Your task to perform on an android device: Do I have any events tomorrow? Image 0: 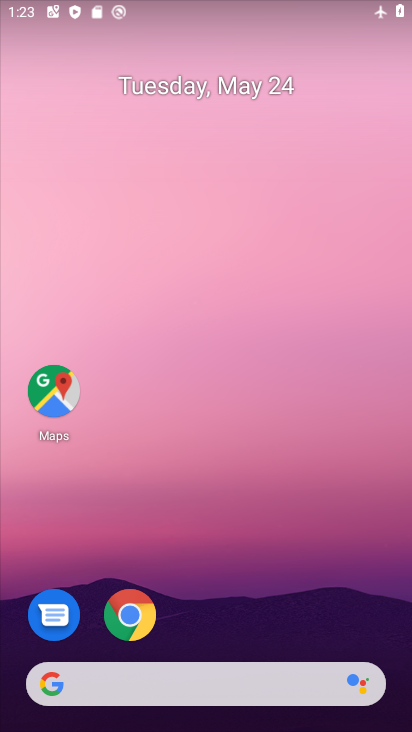
Step 0: drag from (230, 647) to (324, 145)
Your task to perform on an android device: Do I have any events tomorrow? Image 1: 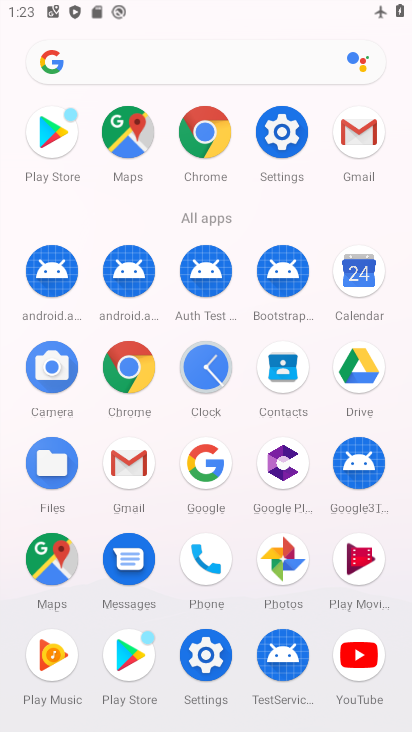
Step 1: click (259, 53)
Your task to perform on an android device: Do I have any events tomorrow? Image 2: 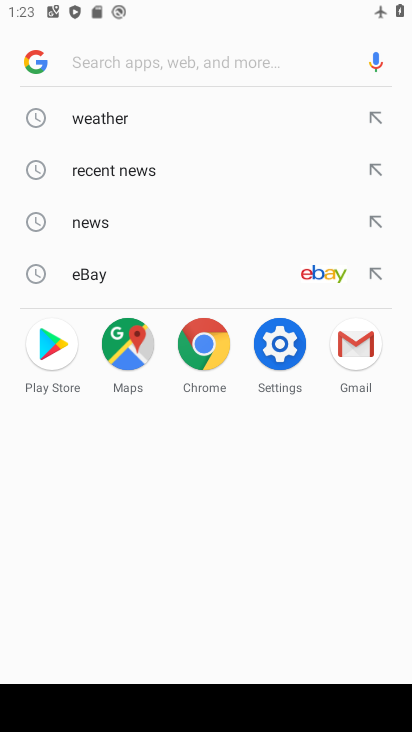
Step 2: click (84, 118)
Your task to perform on an android device: Do I have any events tomorrow? Image 3: 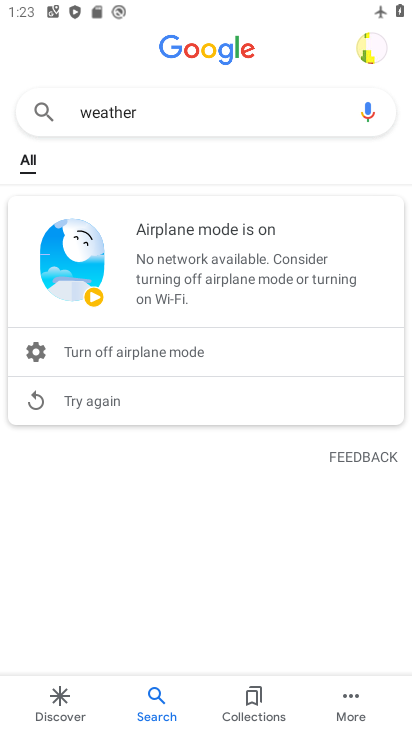
Step 3: drag from (343, 10) to (228, 636)
Your task to perform on an android device: Do I have any events tomorrow? Image 4: 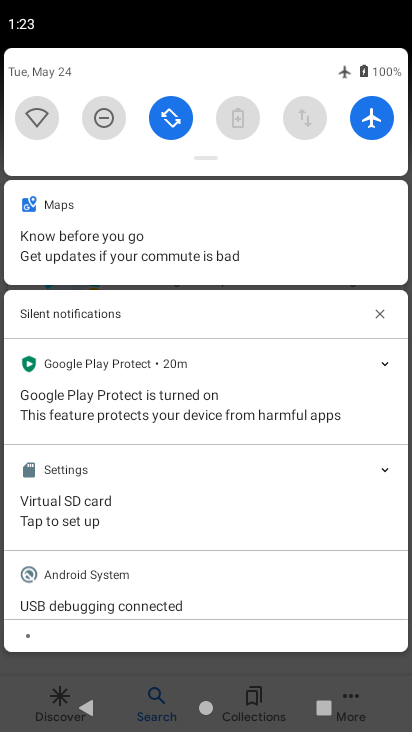
Step 4: click (371, 120)
Your task to perform on an android device: Do I have any events tomorrow? Image 5: 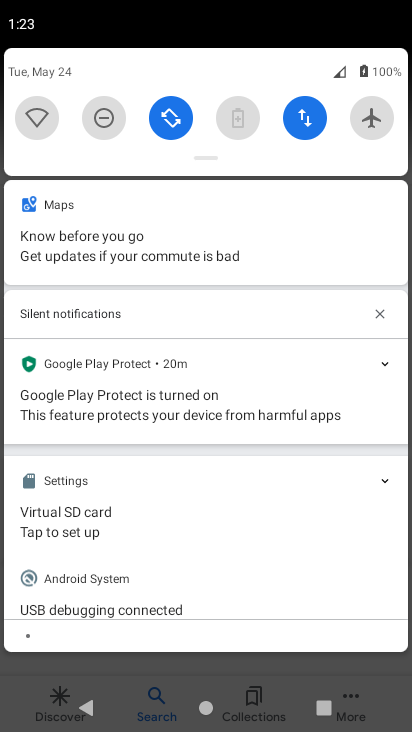
Step 5: click (159, 663)
Your task to perform on an android device: Do I have any events tomorrow? Image 6: 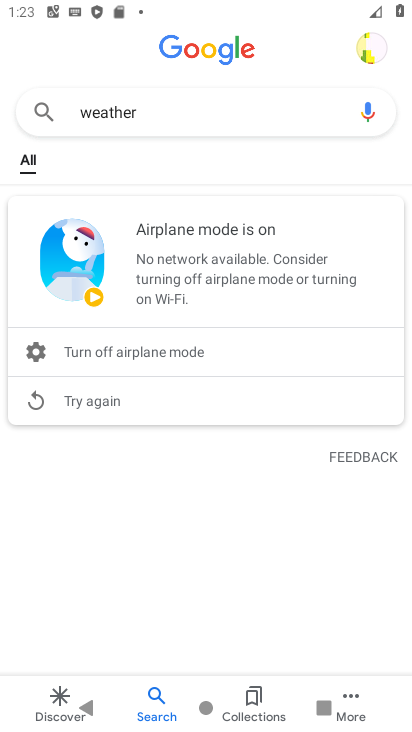
Step 6: click (113, 669)
Your task to perform on an android device: Do I have any events tomorrow? Image 7: 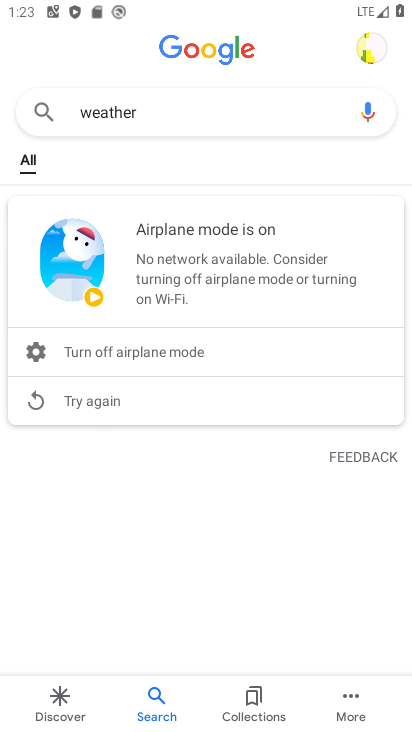
Step 7: click (75, 392)
Your task to perform on an android device: Do I have any events tomorrow? Image 8: 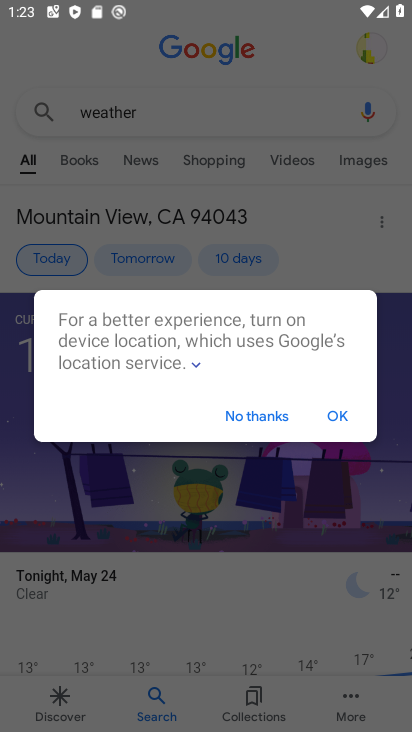
Step 8: click (334, 413)
Your task to perform on an android device: Do I have any events tomorrow? Image 9: 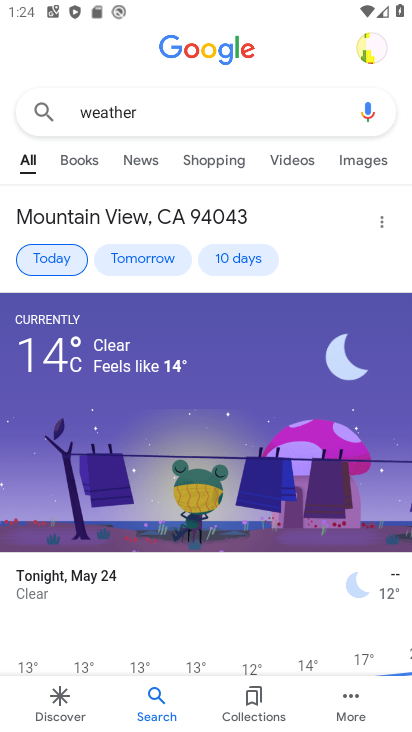
Step 9: click (125, 258)
Your task to perform on an android device: Do I have any events tomorrow? Image 10: 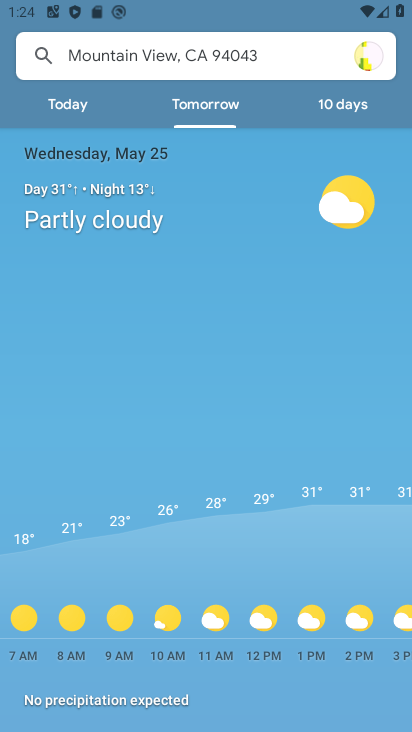
Step 10: task complete